Your task to perform on an android device: Go to Google Image 0: 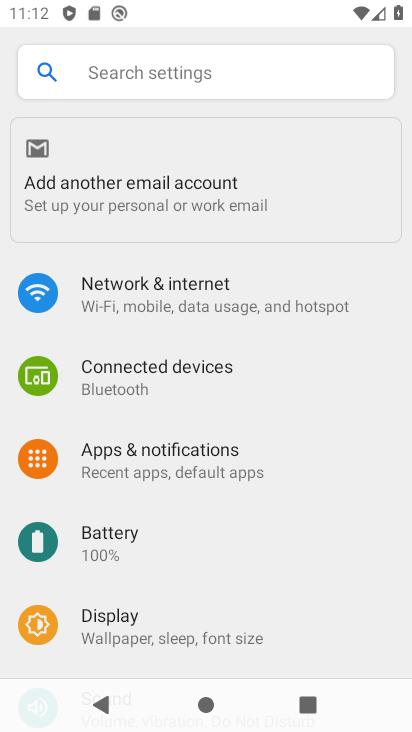
Step 0: press back button
Your task to perform on an android device: Go to Google Image 1: 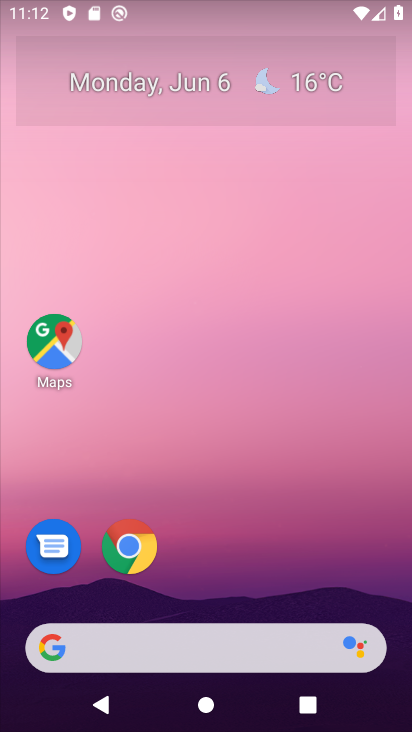
Step 1: drag from (205, 563) to (327, 43)
Your task to perform on an android device: Go to Google Image 2: 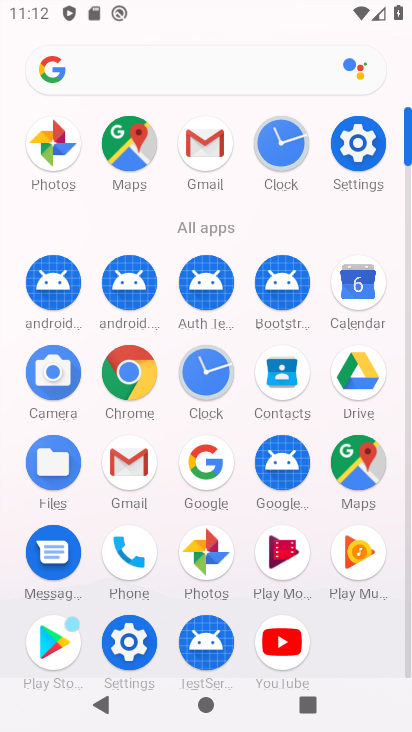
Step 2: click (207, 464)
Your task to perform on an android device: Go to Google Image 3: 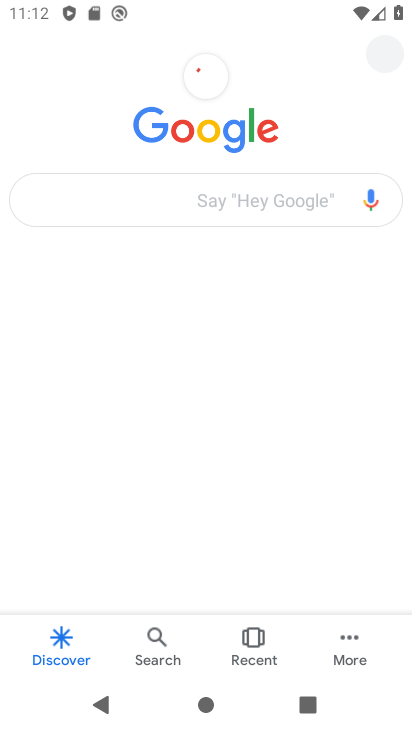
Step 3: task complete